Your task to perform on an android device: toggle airplane mode Image 0: 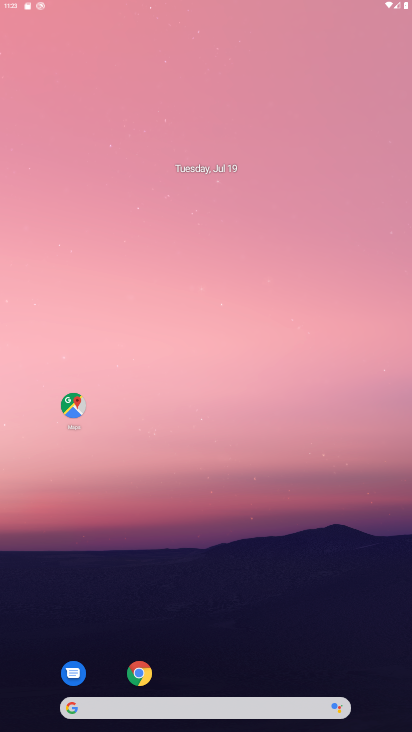
Step 0: drag from (222, 535) to (269, 113)
Your task to perform on an android device: toggle airplane mode Image 1: 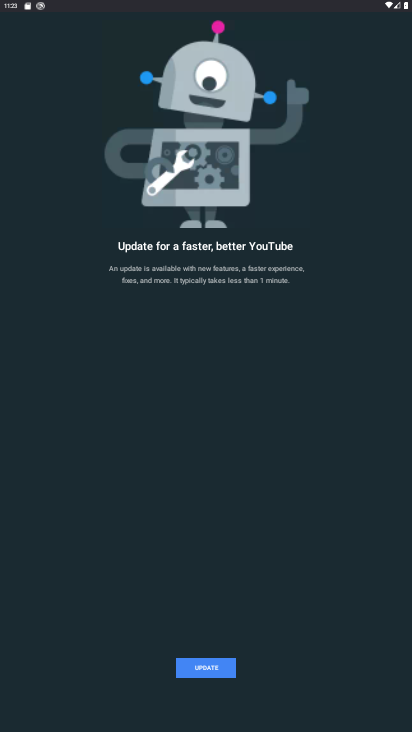
Step 1: press back button
Your task to perform on an android device: toggle airplane mode Image 2: 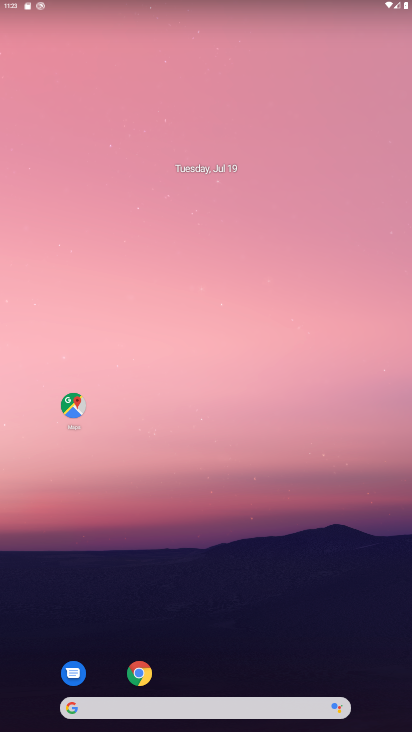
Step 2: drag from (204, 669) to (255, 119)
Your task to perform on an android device: toggle airplane mode Image 3: 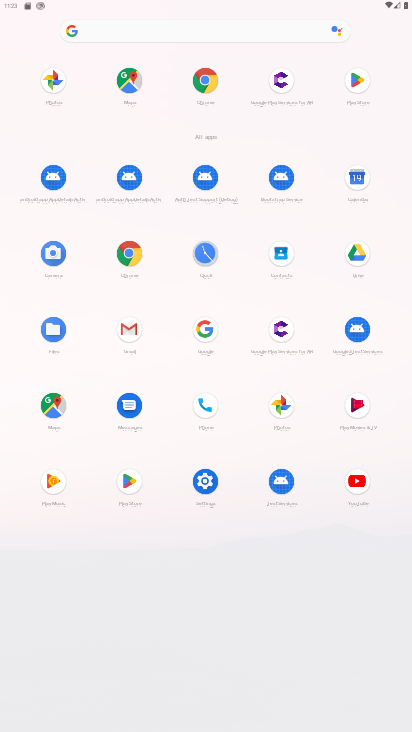
Step 3: click (192, 474)
Your task to perform on an android device: toggle airplane mode Image 4: 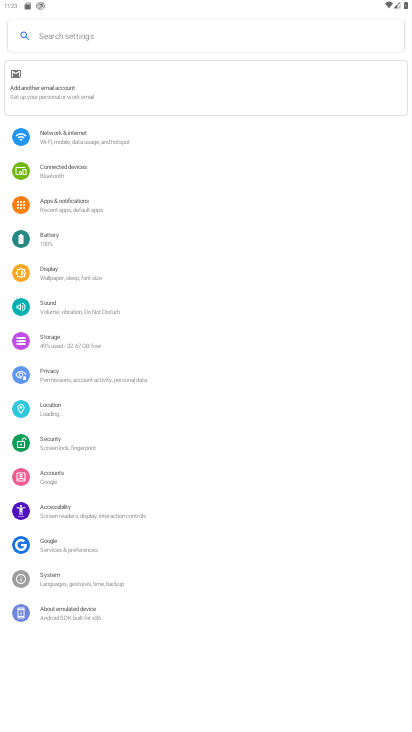
Step 4: click (167, 137)
Your task to perform on an android device: toggle airplane mode Image 5: 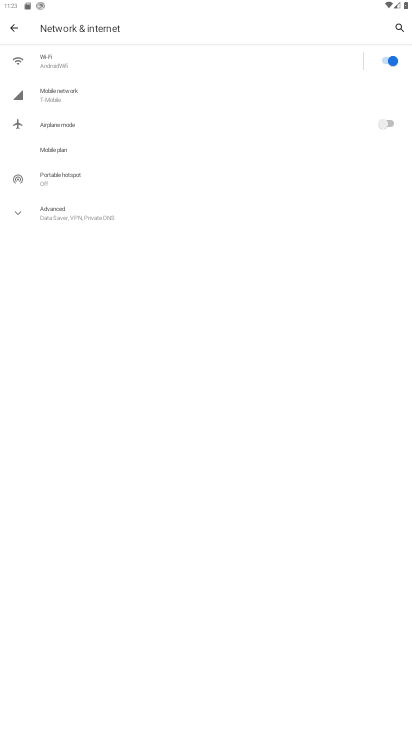
Step 5: click (400, 126)
Your task to perform on an android device: toggle airplane mode Image 6: 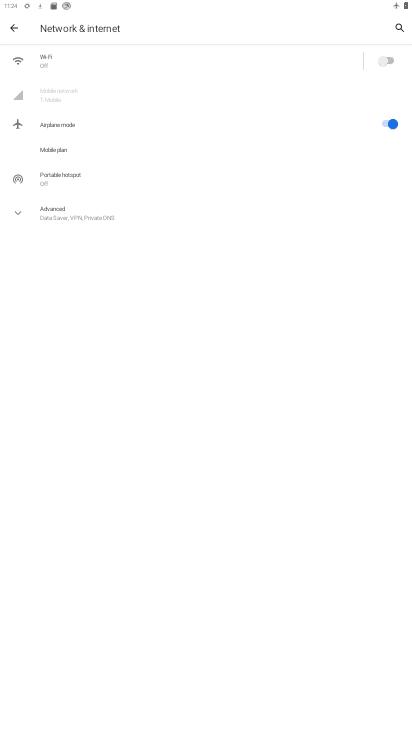
Step 6: task complete